Your task to perform on an android device: turn off javascript in the chrome app Image 0: 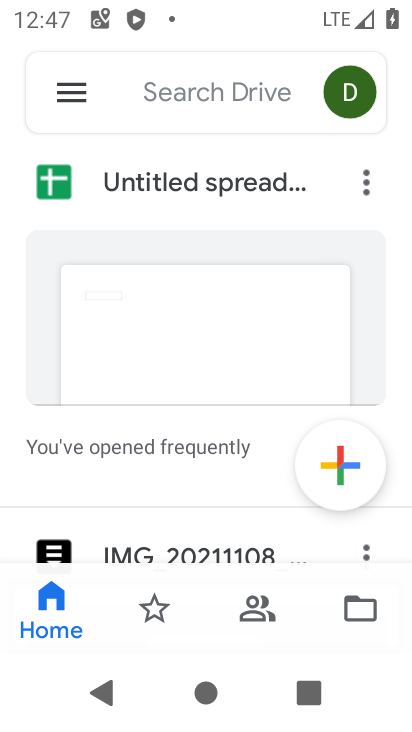
Step 0: press home button
Your task to perform on an android device: turn off javascript in the chrome app Image 1: 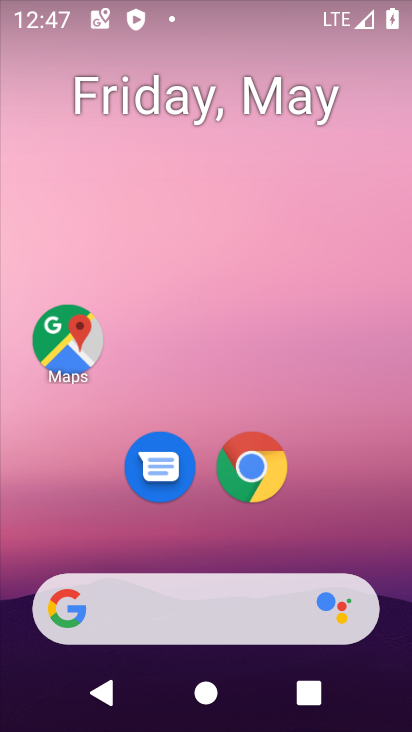
Step 1: click (252, 467)
Your task to perform on an android device: turn off javascript in the chrome app Image 2: 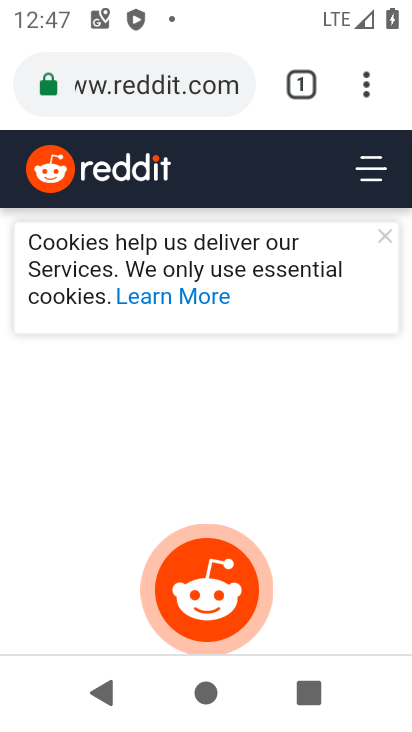
Step 2: click (368, 85)
Your task to perform on an android device: turn off javascript in the chrome app Image 3: 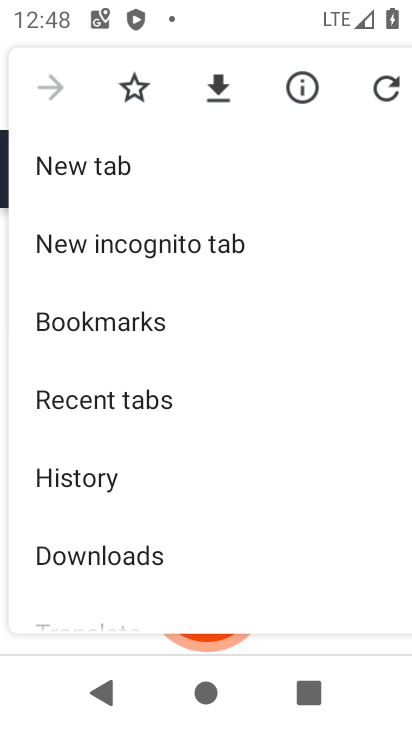
Step 3: drag from (186, 500) to (205, 420)
Your task to perform on an android device: turn off javascript in the chrome app Image 4: 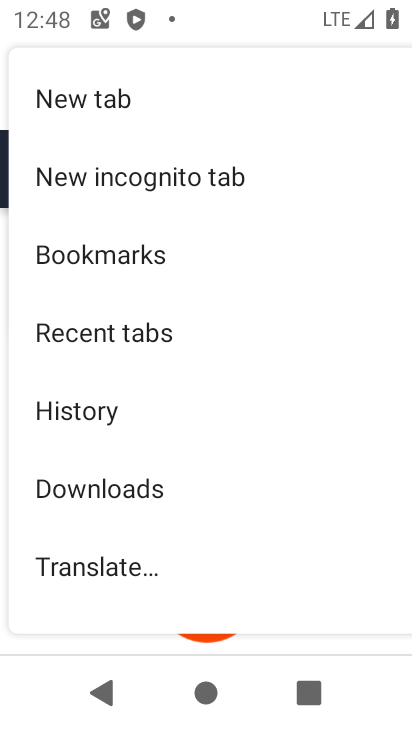
Step 4: drag from (157, 522) to (239, 392)
Your task to perform on an android device: turn off javascript in the chrome app Image 5: 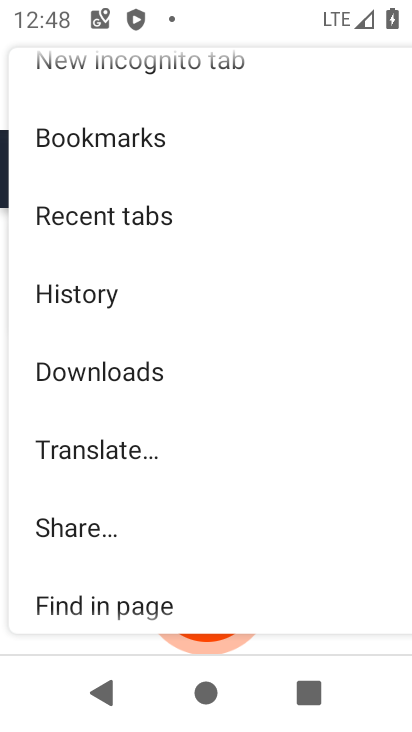
Step 5: drag from (143, 576) to (253, 416)
Your task to perform on an android device: turn off javascript in the chrome app Image 6: 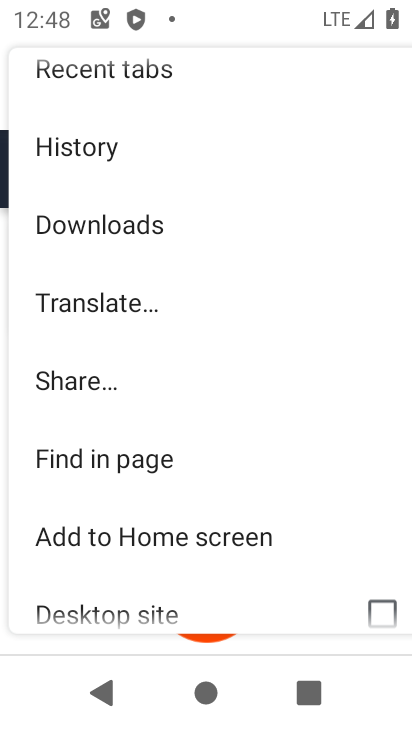
Step 6: drag from (170, 588) to (281, 403)
Your task to perform on an android device: turn off javascript in the chrome app Image 7: 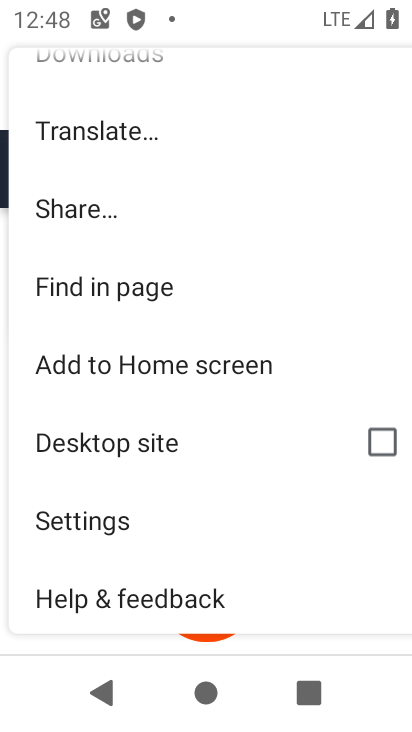
Step 7: click (117, 524)
Your task to perform on an android device: turn off javascript in the chrome app Image 8: 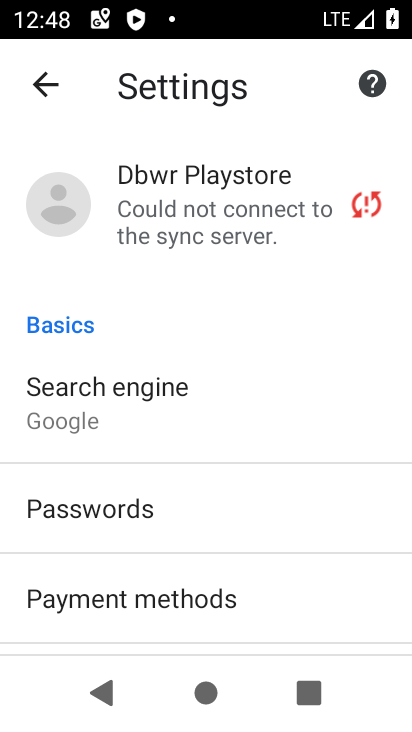
Step 8: drag from (182, 519) to (279, 380)
Your task to perform on an android device: turn off javascript in the chrome app Image 9: 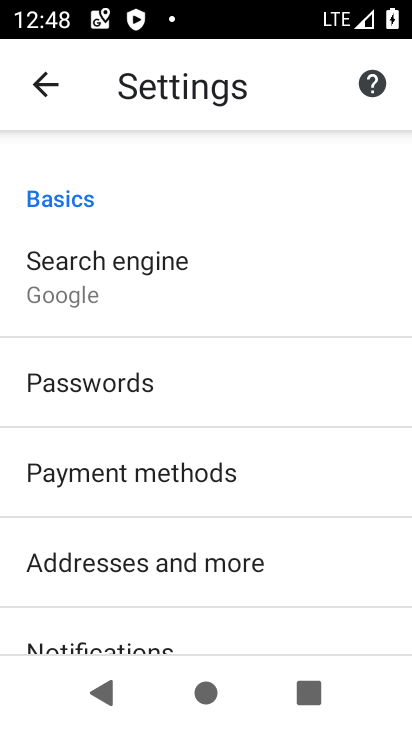
Step 9: drag from (165, 603) to (259, 453)
Your task to perform on an android device: turn off javascript in the chrome app Image 10: 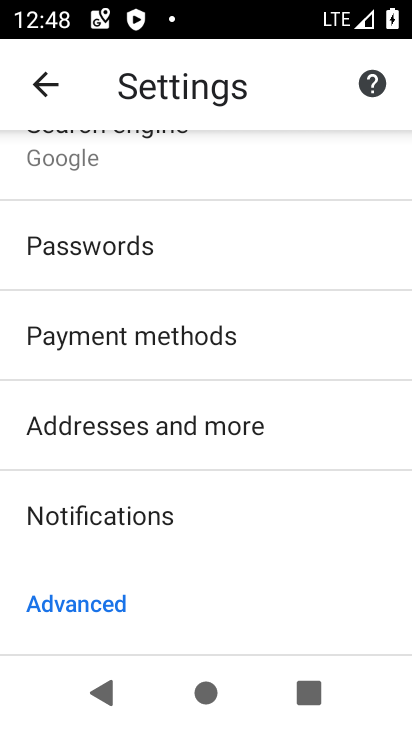
Step 10: drag from (206, 581) to (286, 441)
Your task to perform on an android device: turn off javascript in the chrome app Image 11: 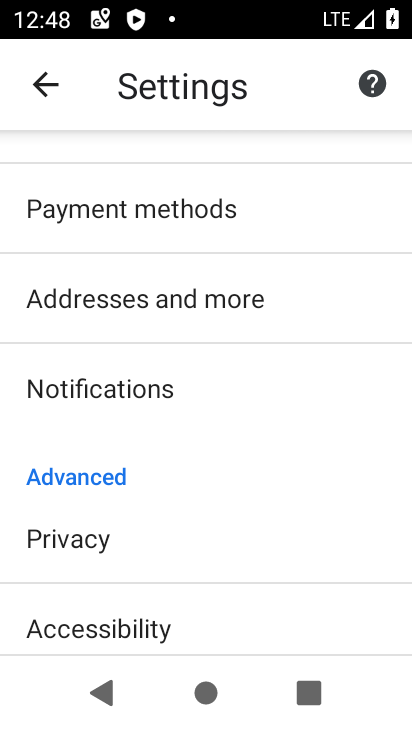
Step 11: drag from (177, 595) to (257, 463)
Your task to perform on an android device: turn off javascript in the chrome app Image 12: 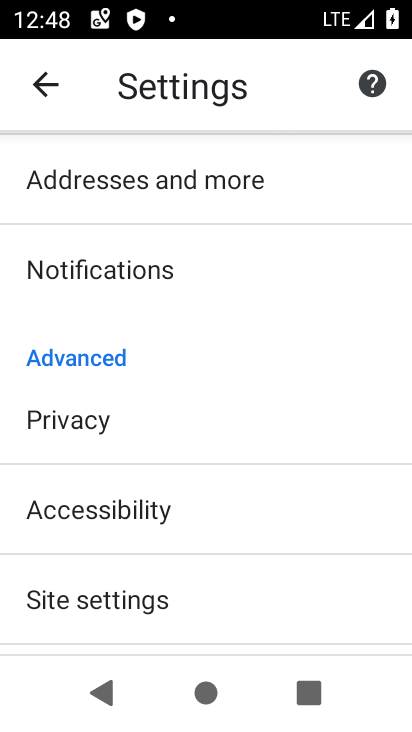
Step 12: drag from (205, 595) to (261, 511)
Your task to perform on an android device: turn off javascript in the chrome app Image 13: 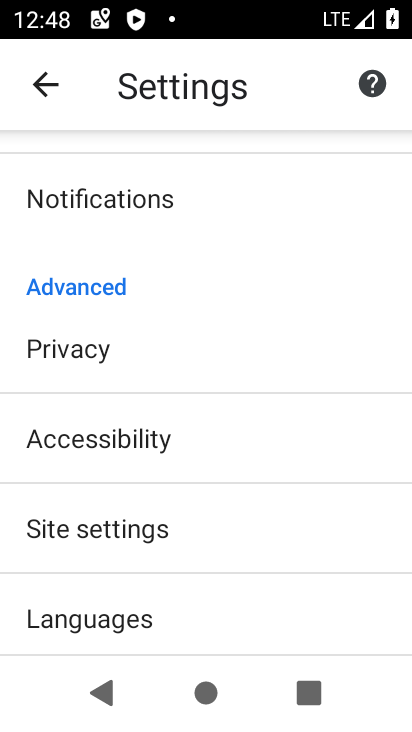
Step 13: click (89, 534)
Your task to perform on an android device: turn off javascript in the chrome app Image 14: 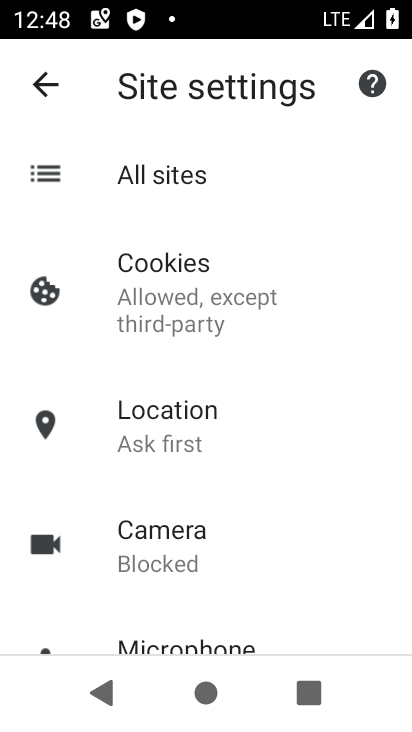
Step 14: drag from (235, 583) to (236, 443)
Your task to perform on an android device: turn off javascript in the chrome app Image 15: 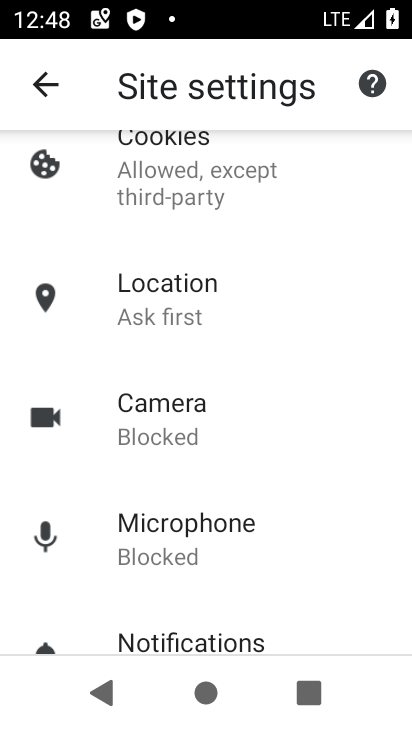
Step 15: drag from (205, 557) to (250, 454)
Your task to perform on an android device: turn off javascript in the chrome app Image 16: 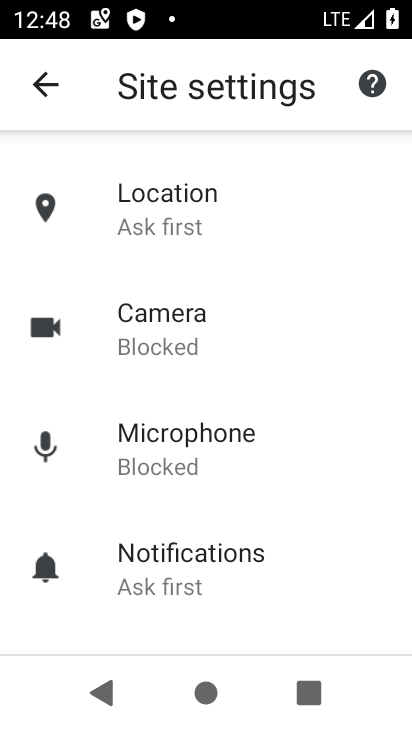
Step 16: drag from (212, 529) to (243, 467)
Your task to perform on an android device: turn off javascript in the chrome app Image 17: 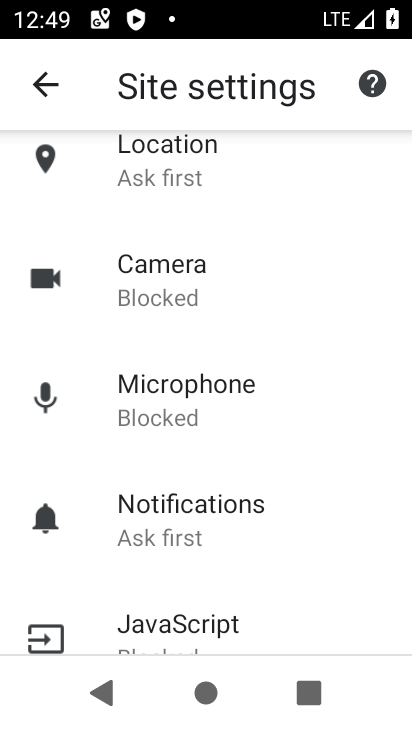
Step 17: drag from (205, 549) to (273, 415)
Your task to perform on an android device: turn off javascript in the chrome app Image 18: 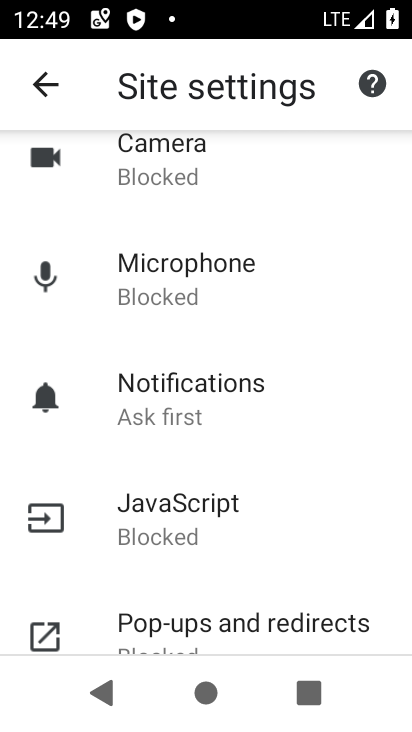
Step 18: click (204, 516)
Your task to perform on an android device: turn off javascript in the chrome app Image 19: 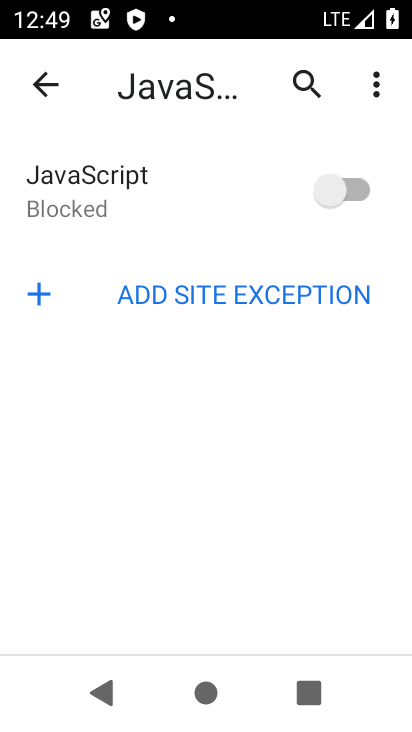
Step 19: task complete